Your task to perform on an android device: clear all cookies in the chrome app Image 0: 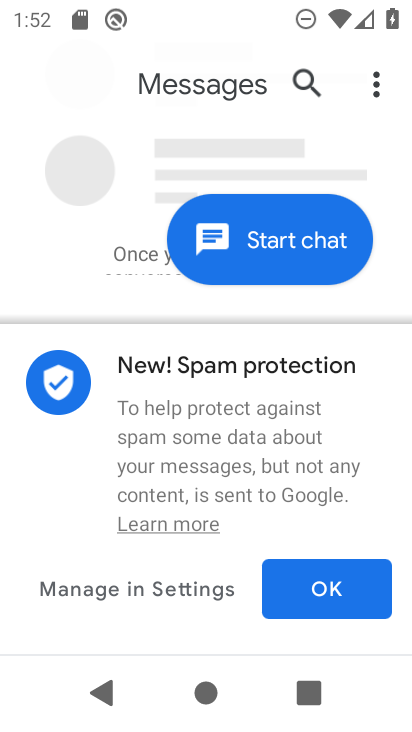
Step 0: press home button
Your task to perform on an android device: clear all cookies in the chrome app Image 1: 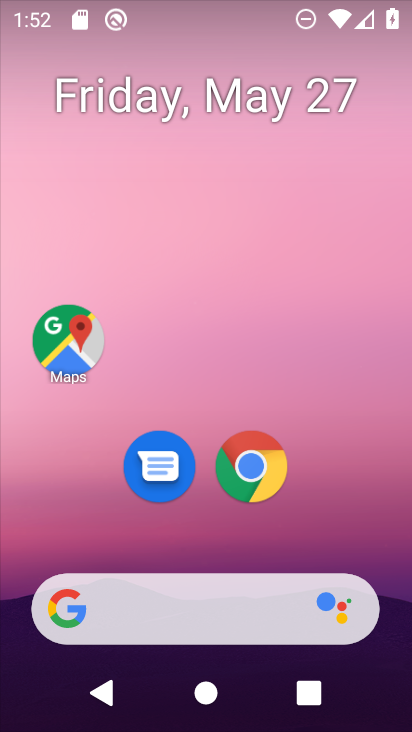
Step 1: click (223, 423)
Your task to perform on an android device: clear all cookies in the chrome app Image 2: 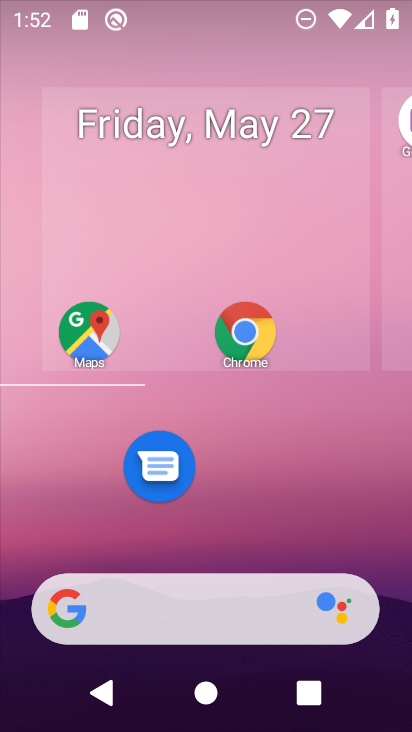
Step 2: click (245, 464)
Your task to perform on an android device: clear all cookies in the chrome app Image 3: 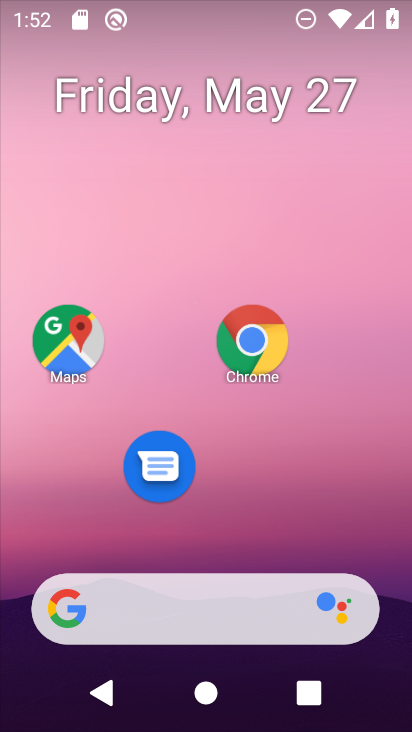
Step 3: click (245, 464)
Your task to perform on an android device: clear all cookies in the chrome app Image 4: 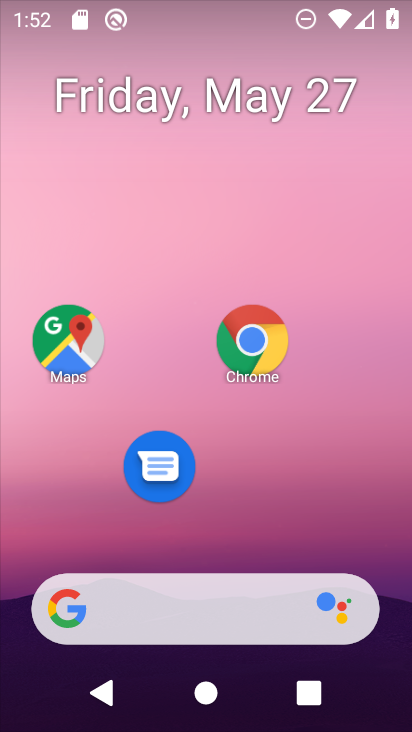
Step 4: click (245, 464)
Your task to perform on an android device: clear all cookies in the chrome app Image 5: 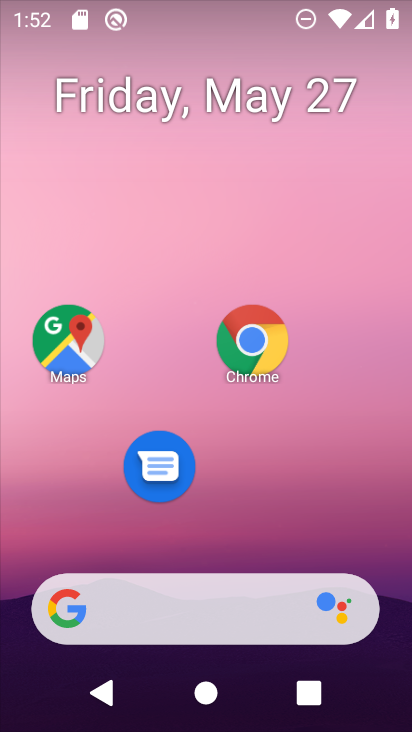
Step 5: click (245, 462)
Your task to perform on an android device: clear all cookies in the chrome app Image 6: 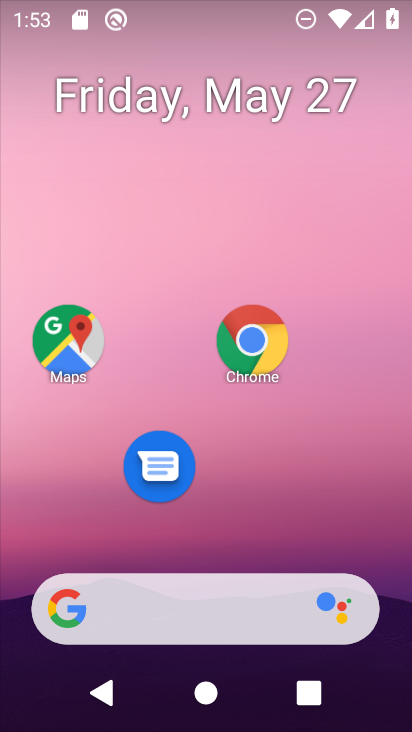
Step 6: click (265, 371)
Your task to perform on an android device: clear all cookies in the chrome app Image 7: 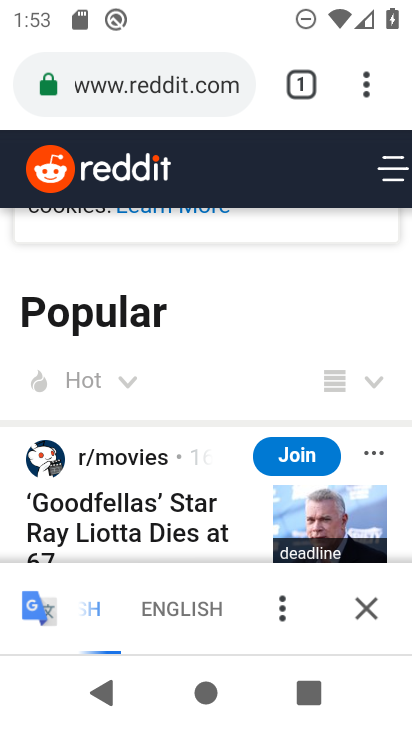
Step 7: click (381, 91)
Your task to perform on an android device: clear all cookies in the chrome app Image 8: 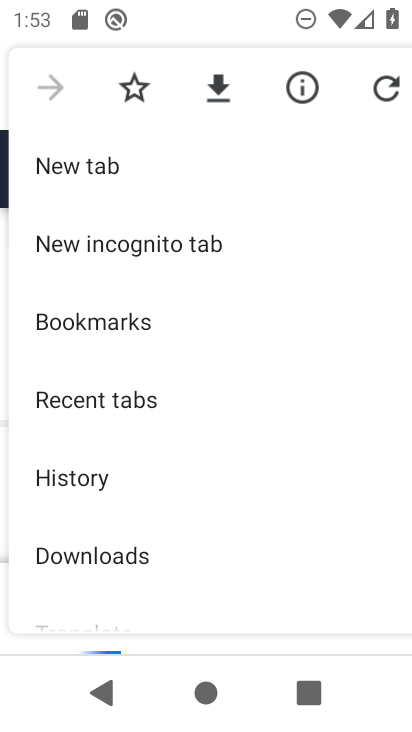
Step 8: drag from (275, 456) to (254, 202)
Your task to perform on an android device: clear all cookies in the chrome app Image 9: 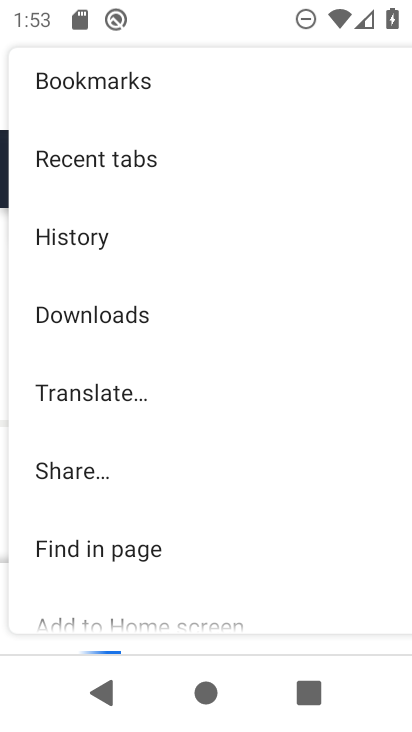
Step 9: drag from (220, 621) to (209, 318)
Your task to perform on an android device: clear all cookies in the chrome app Image 10: 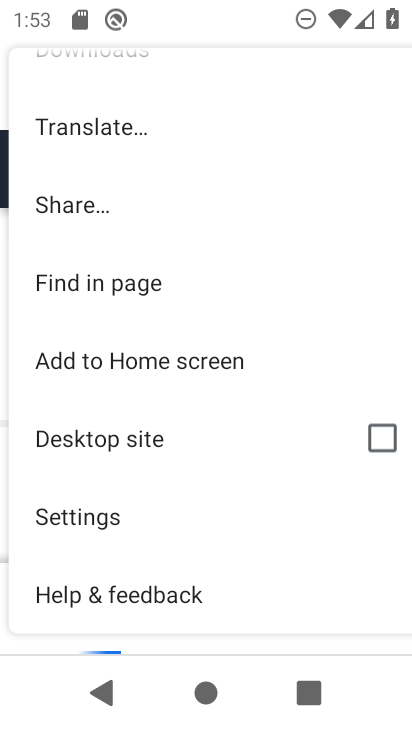
Step 10: click (152, 520)
Your task to perform on an android device: clear all cookies in the chrome app Image 11: 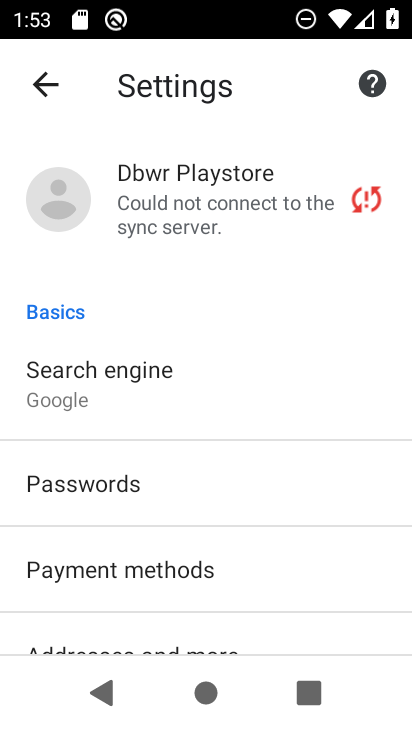
Step 11: drag from (162, 510) to (188, 418)
Your task to perform on an android device: clear all cookies in the chrome app Image 12: 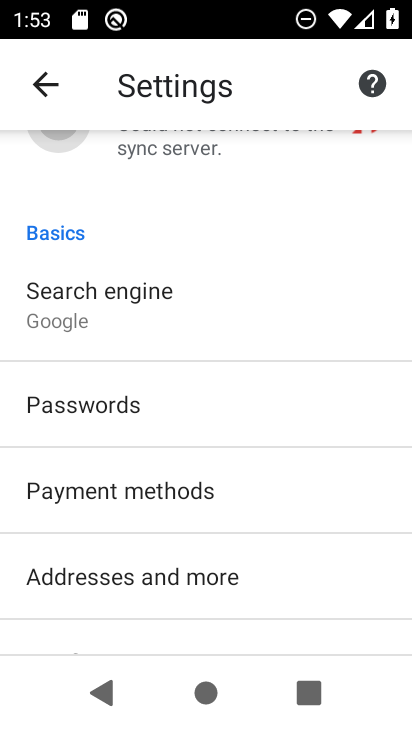
Step 12: drag from (180, 480) to (203, 407)
Your task to perform on an android device: clear all cookies in the chrome app Image 13: 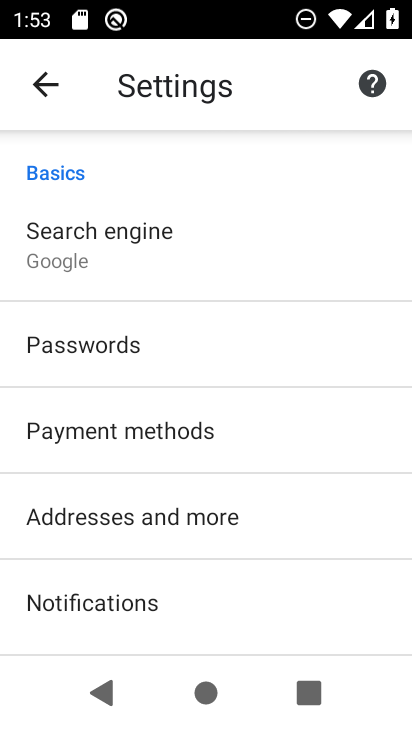
Step 13: drag from (220, 537) to (221, 295)
Your task to perform on an android device: clear all cookies in the chrome app Image 14: 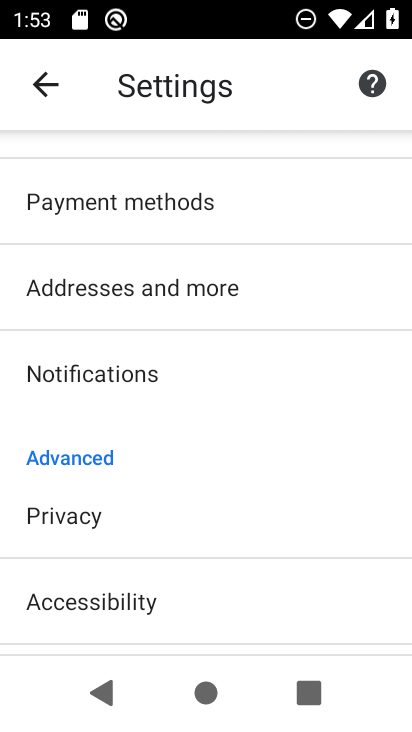
Step 14: drag from (221, 567) to (209, 310)
Your task to perform on an android device: clear all cookies in the chrome app Image 15: 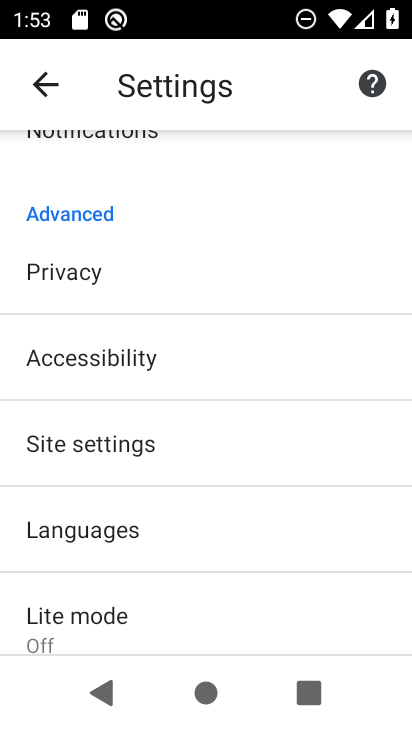
Step 15: click (200, 293)
Your task to perform on an android device: clear all cookies in the chrome app Image 16: 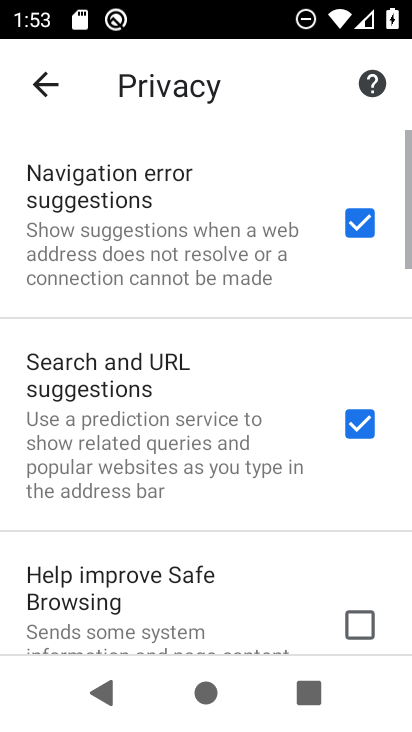
Step 16: drag from (204, 549) to (185, 146)
Your task to perform on an android device: clear all cookies in the chrome app Image 17: 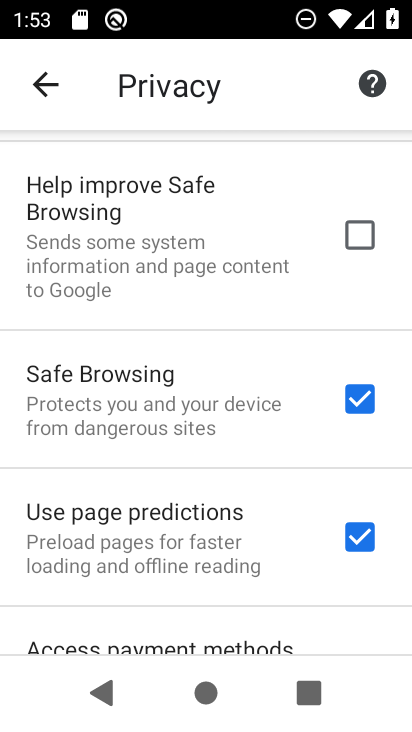
Step 17: drag from (162, 587) to (174, 146)
Your task to perform on an android device: clear all cookies in the chrome app Image 18: 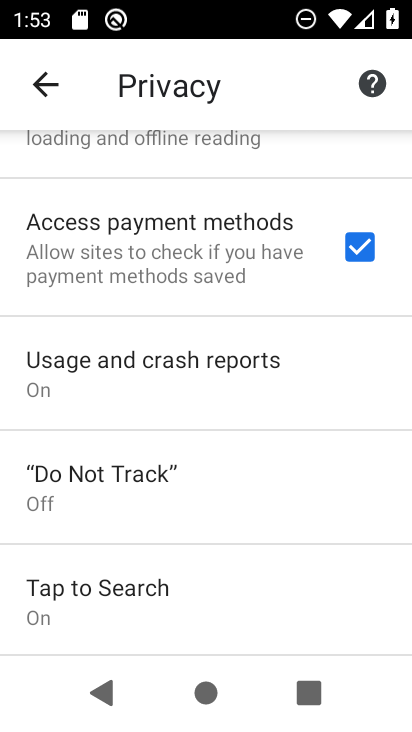
Step 18: drag from (191, 605) to (186, 294)
Your task to perform on an android device: clear all cookies in the chrome app Image 19: 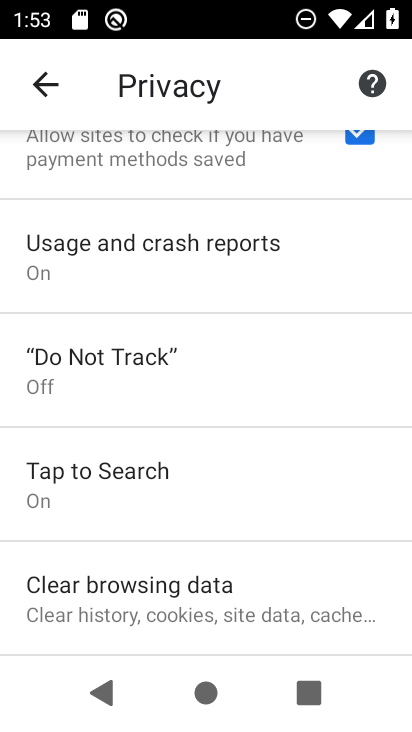
Step 19: click (157, 588)
Your task to perform on an android device: clear all cookies in the chrome app Image 20: 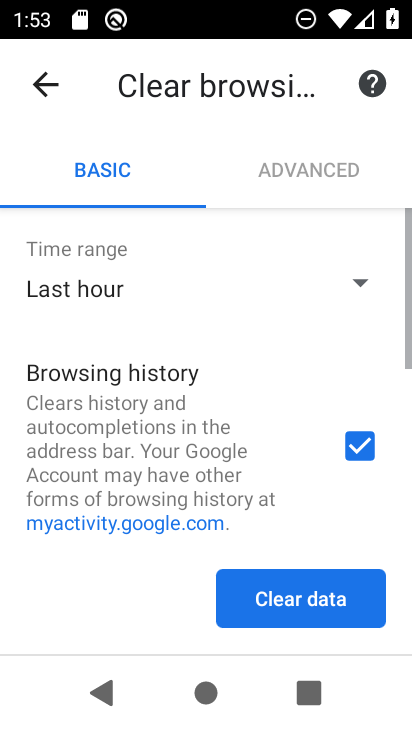
Step 20: click (256, 280)
Your task to perform on an android device: clear all cookies in the chrome app Image 21: 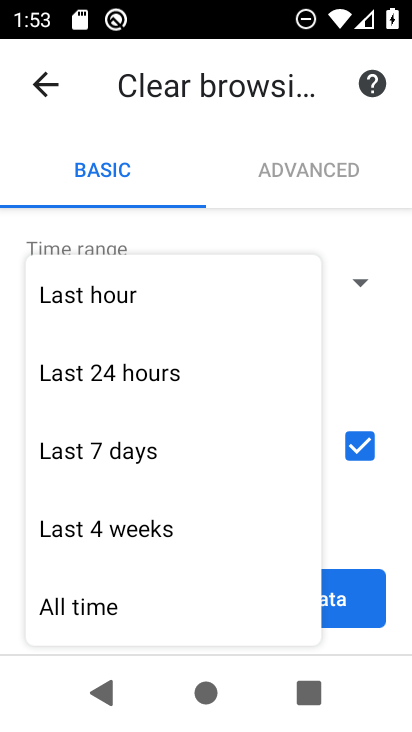
Step 21: click (190, 606)
Your task to perform on an android device: clear all cookies in the chrome app Image 22: 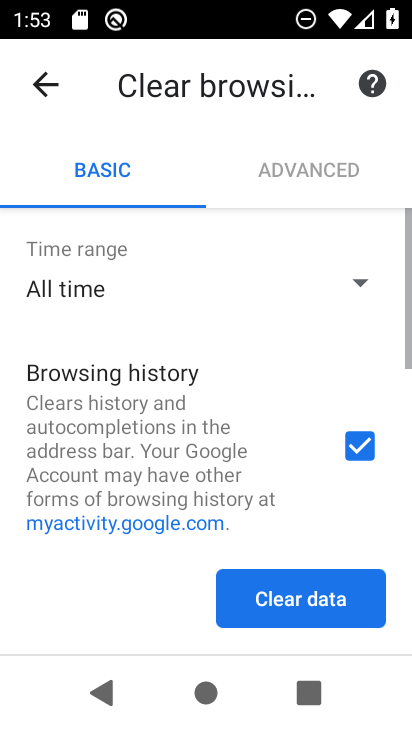
Step 22: drag from (192, 588) to (204, 492)
Your task to perform on an android device: clear all cookies in the chrome app Image 23: 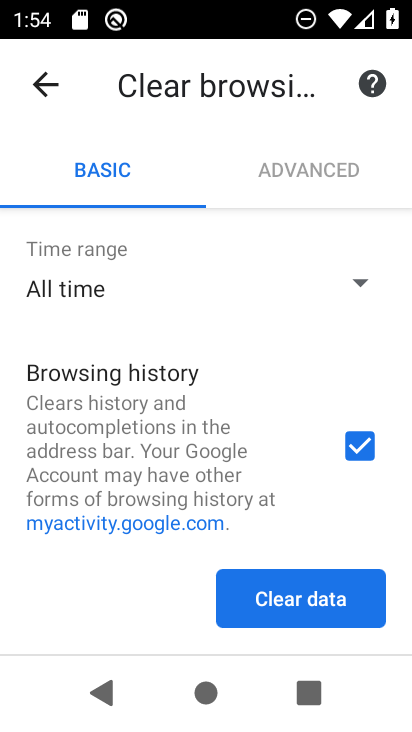
Step 23: click (204, 489)
Your task to perform on an android device: clear all cookies in the chrome app Image 24: 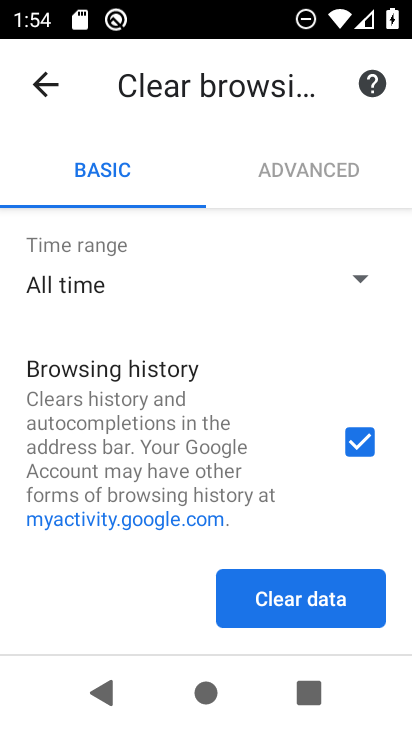
Step 24: drag from (211, 472) to (225, 402)
Your task to perform on an android device: clear all cookies in the chrome app Image 25: 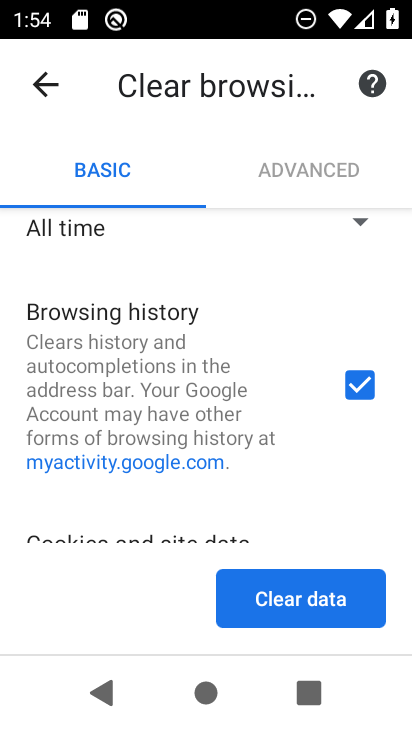
Step 25: click (356, 375)
Your task to perform on an android device: clear all cookies in the chrome app Image 26: 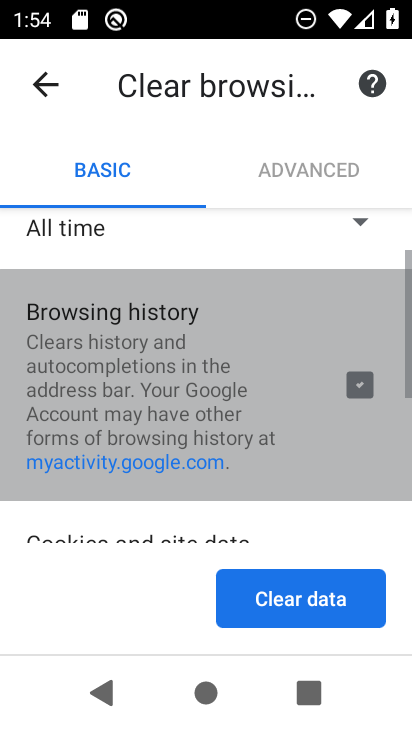
Step 26: drag from (277, 484) to (239, 201)
Your task to perform on an android device: clear all cookies in the chrome app Image 27: 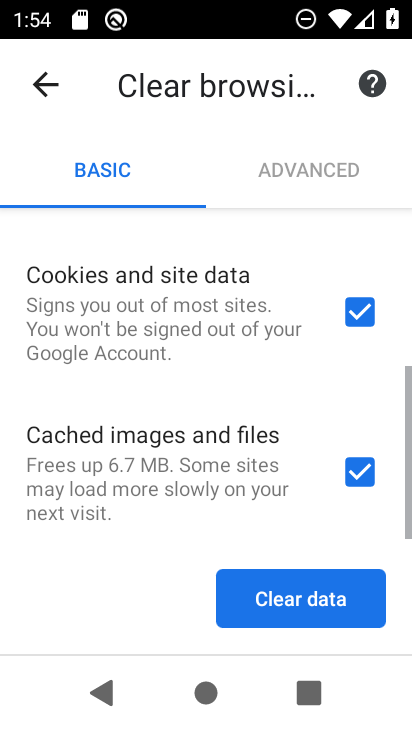
Step 27: drag from (264, 503) to (270, 349)
Your task to perform on an android device: clear all cookies in the chrome app Image 28: 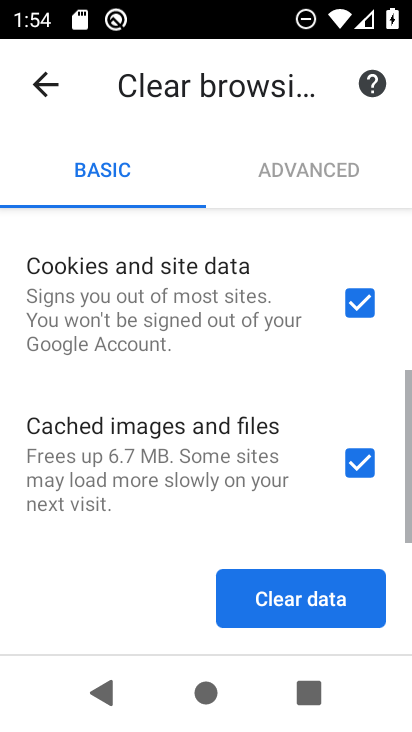
Step 28: click (353, 468)
Your task to perform on an android device: clear all cookies in the chrome app Image 29: 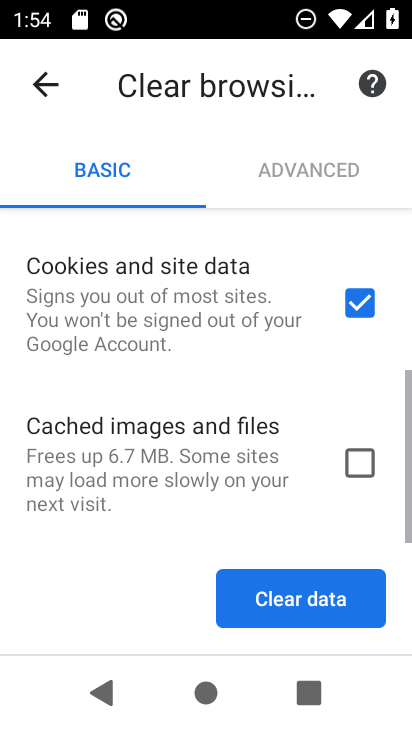
Step 29: click (303, 614)
Your task to perform on an android device: clear all cookies in the chrome app Image 30: 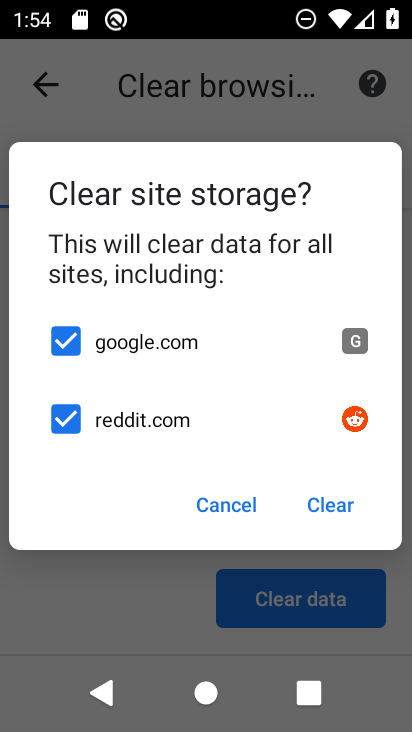
Step 30: click (323, 513)
Your task to perform on an android device: clear all cookies in the chrome app Image 31: 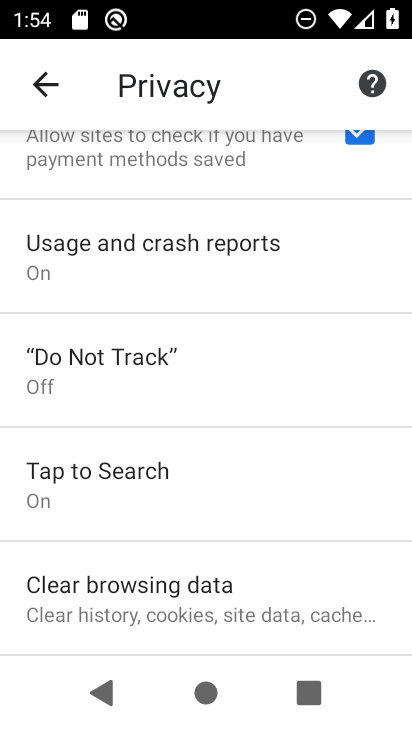
Step 31: task complete